Your task to perform on an android device: Go to location settings Image 0: 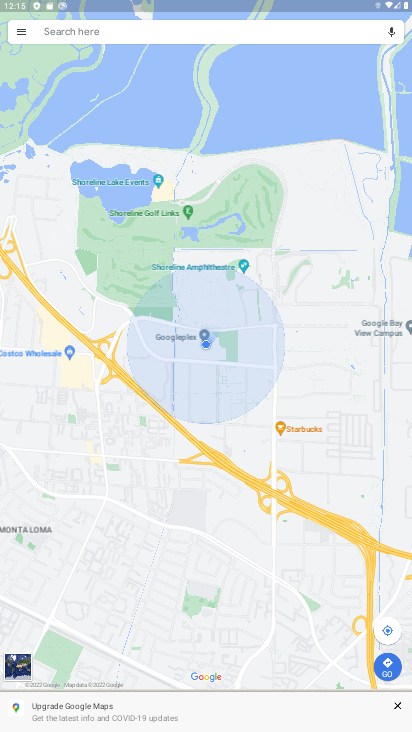
Step 0: press home button
Your task to perform on an android device: Go to location settings Image 1: 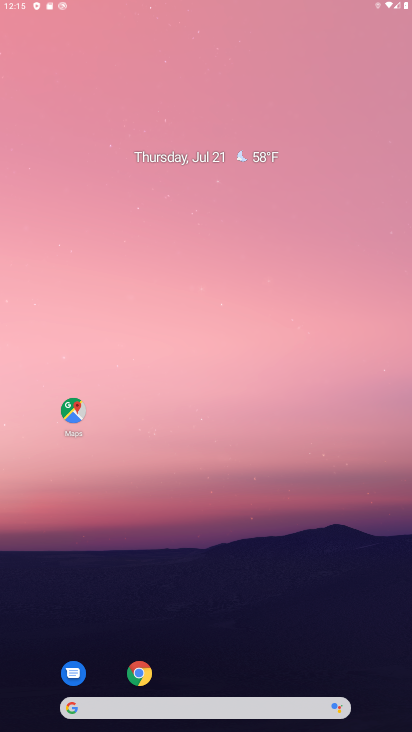
Step 1: drag from (229, 669) to (234, 209)
Your task to perform on an android device: Go to location settings Image 2: 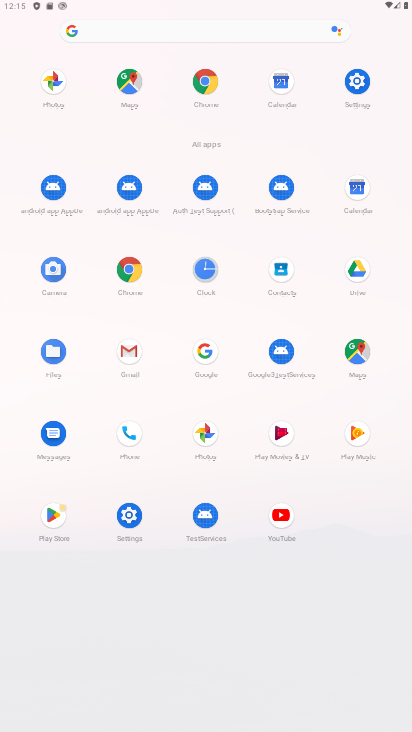
Step 2: click (348, 86)
Your task to perform on an android device: Go to location settings Image 3: 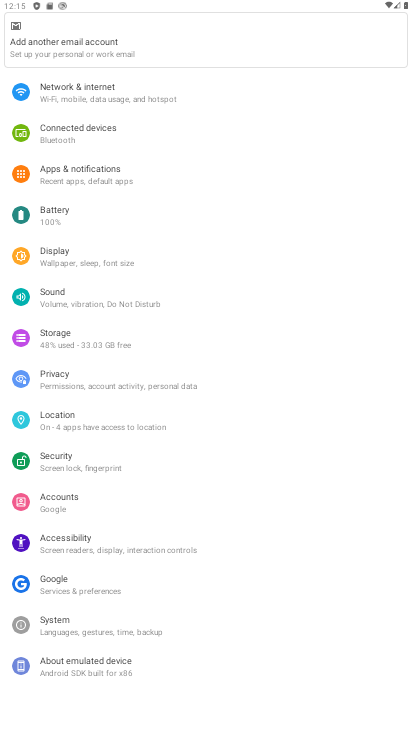
Step 3: click (91, 423)
Your task to perform on an android device: Go to location settings Image 4: 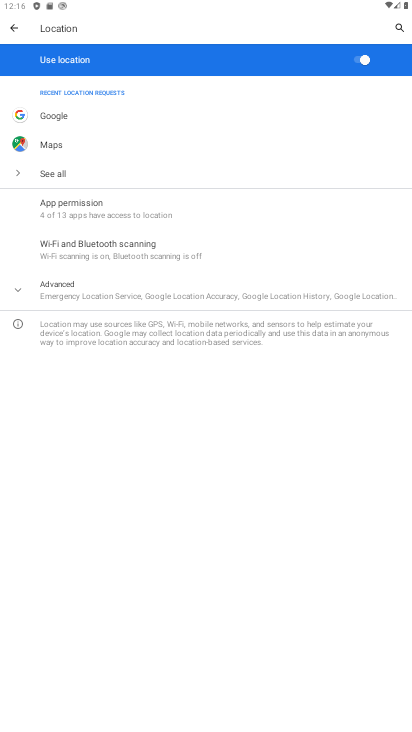
Step 4: task complete